Your task to perform on an android device: Open Maps and search for coffee Image 0: 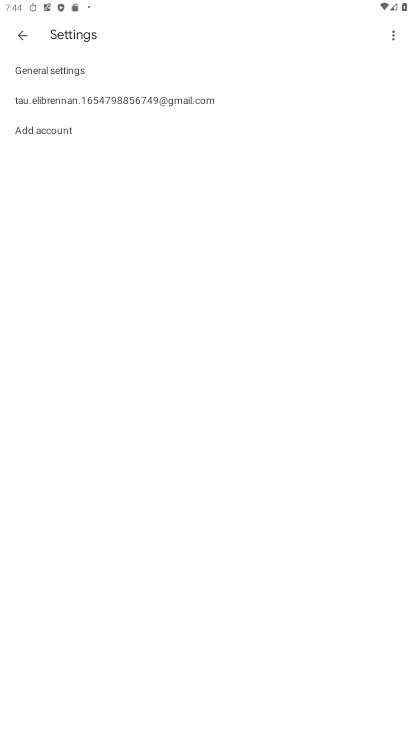
Step 0: press home button
Your task to perform on an android device: Open Maps and search for coffee Image 1: 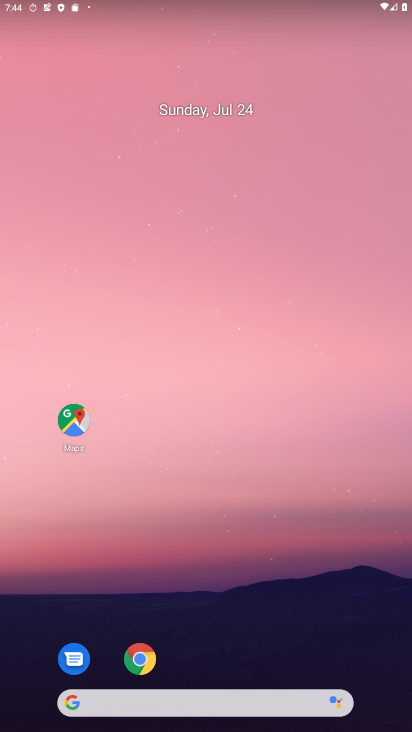
Step 1: drag from (267, 549) to (157, 57)
Your task to perform on an android device: Open Maps and search for coffee Image 2: 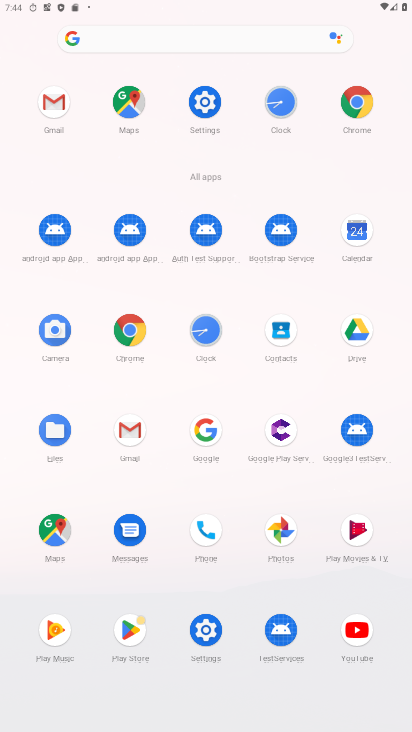
Step 2: click (136, 102)
Your task to perform on an android device: Open Maps and search for coffee Image 3: 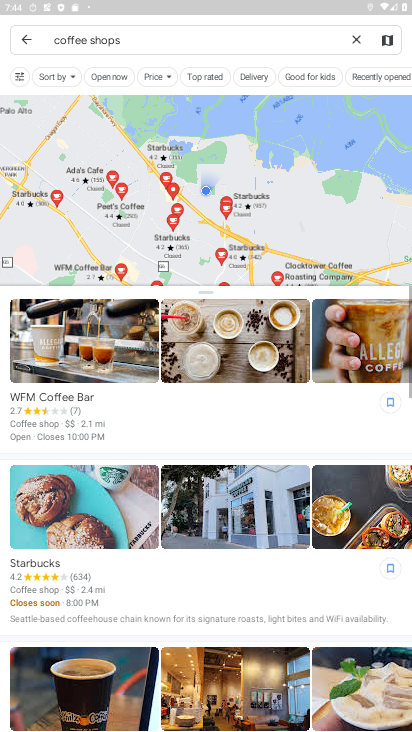
Step 3: click (229, 49)
Your task to perform on an android device: Open Maps and search for coffee Image 4: 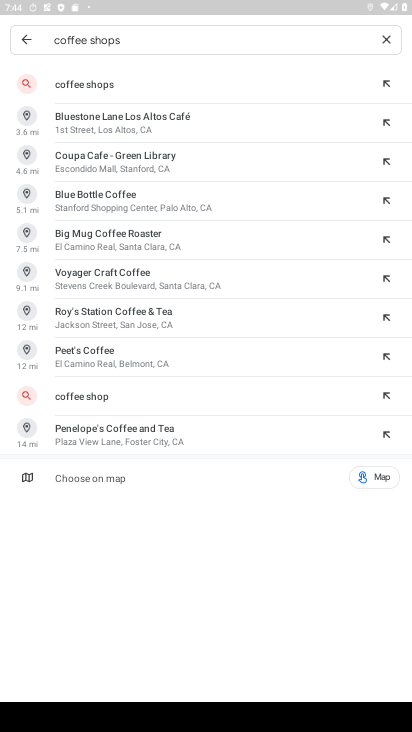
Step 4: click (382, 37)
Your task to perform on an android device: Open Maps and search for coffee Image 5: 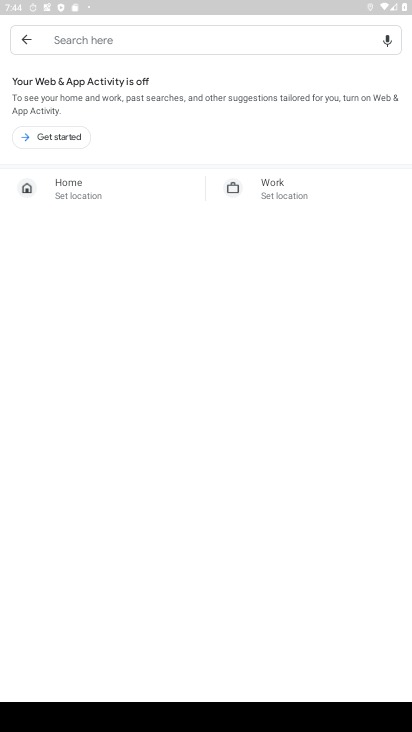
Step 5: type "coffee"
Your task to perform on an android device: Open Maps and search for coffee Image 6: 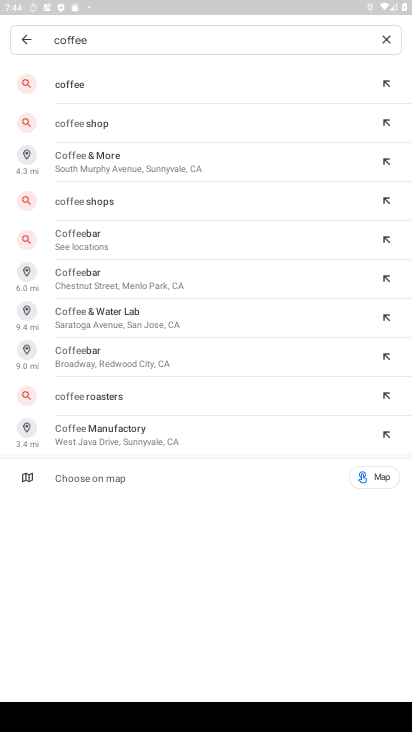
Step 6: click (96, 87)
Your task to perform on an android device: Open Maps and search for coffee Image 7: 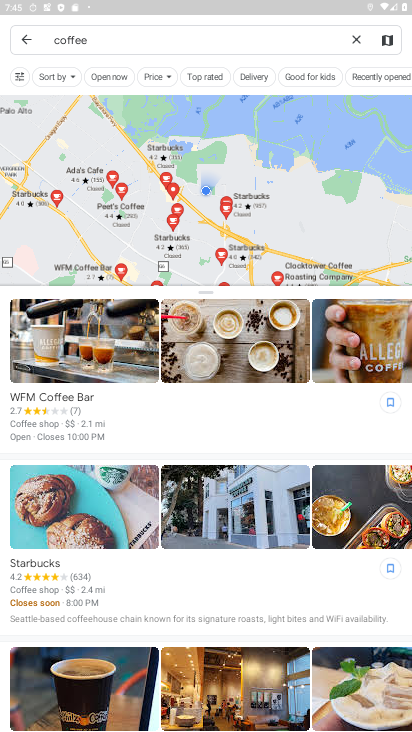
Step 7: task complete